Your task to perform on an android device: Open CNN.com Image 0: 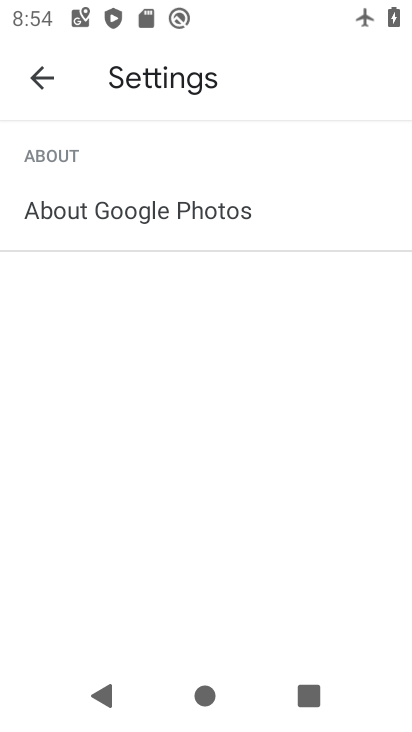
Step 0: press home button
Your task to perform on an android device: Open CNN.com Image 1: 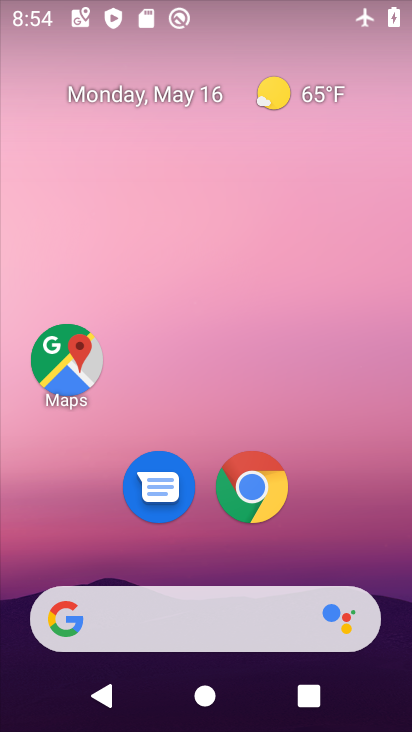
Step 1: drag from (365, 530) to (372, 198)
Your task to perform on an android device: Open CNN.com Image 2: 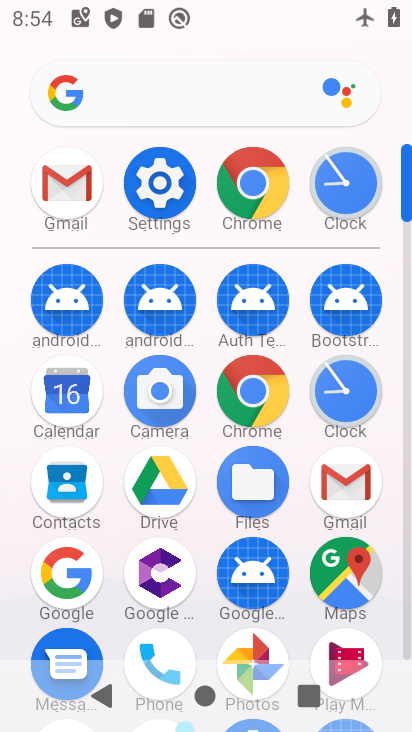
Step 2: click (265, 402)
Your task to perform on an android device: Open CNN.com Image 3: 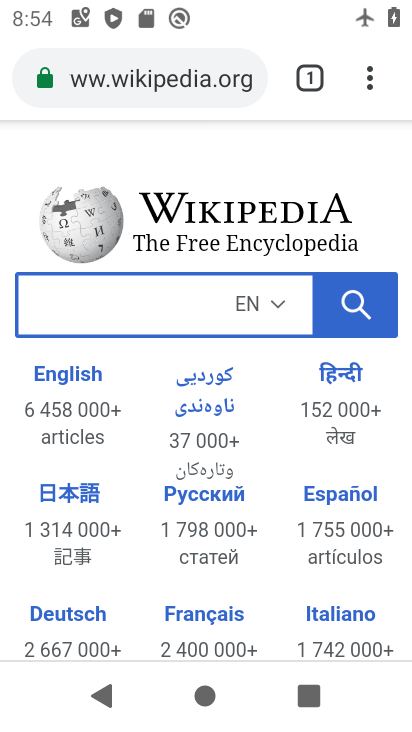
Step 3: click (112, 80)
Your task to perform on an android device: Open CNN.com Image 4: 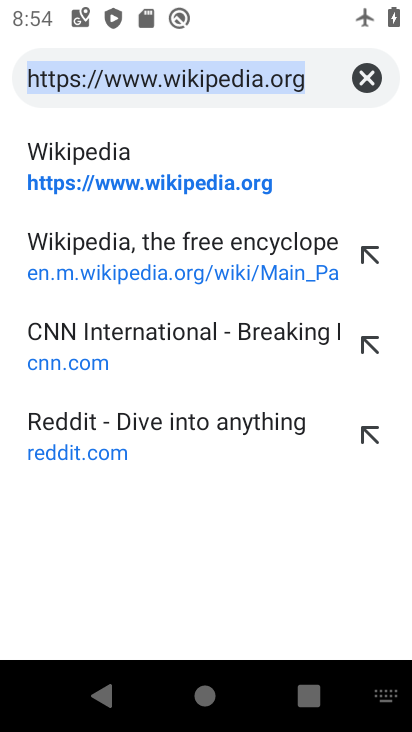
Step 4: click (380, 93)
Your task to perform on an android device: Open CNN.com Image 5: 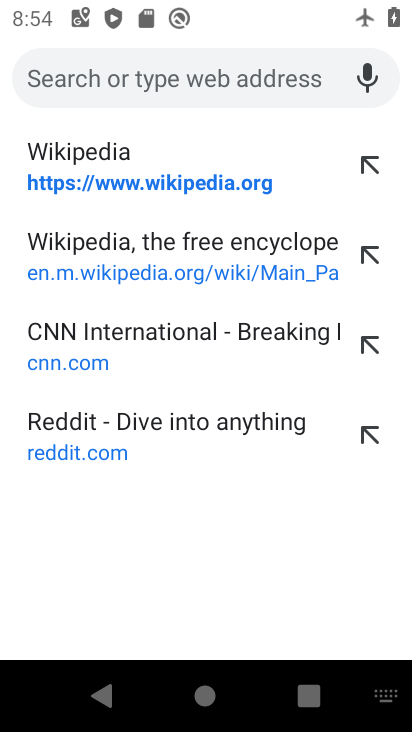
Step 5: type "cnn.com"
Your task to perform on an android device: Open CNN.com Image 6: 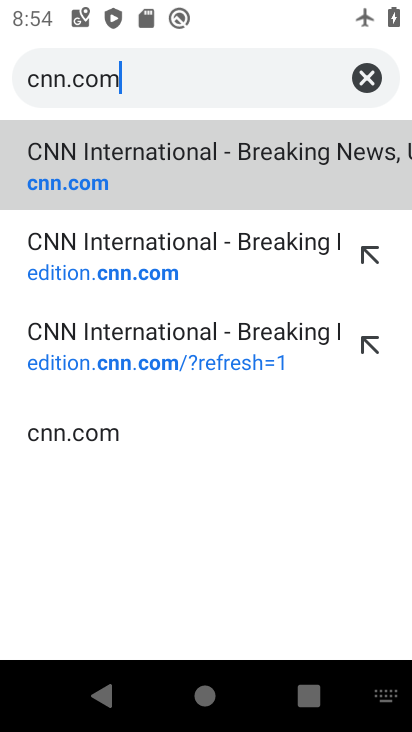
Step 6: click (115, 168)
Your task to perform on an android device: Open CNN.com Image 7: 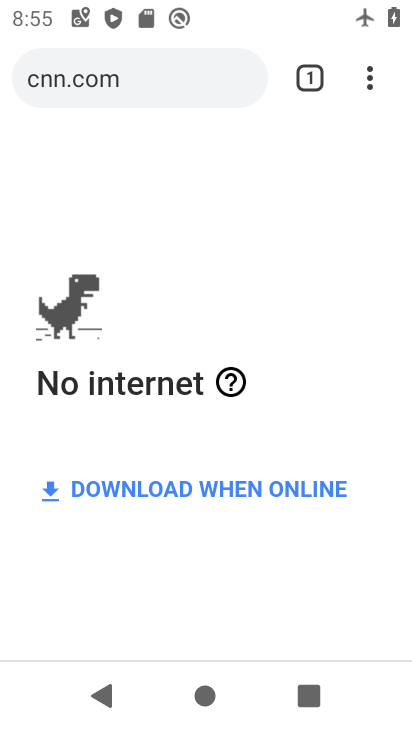
Step 7: task complete